Your task to perform on an android device: What's the weather going to be this weekend? Image 0: 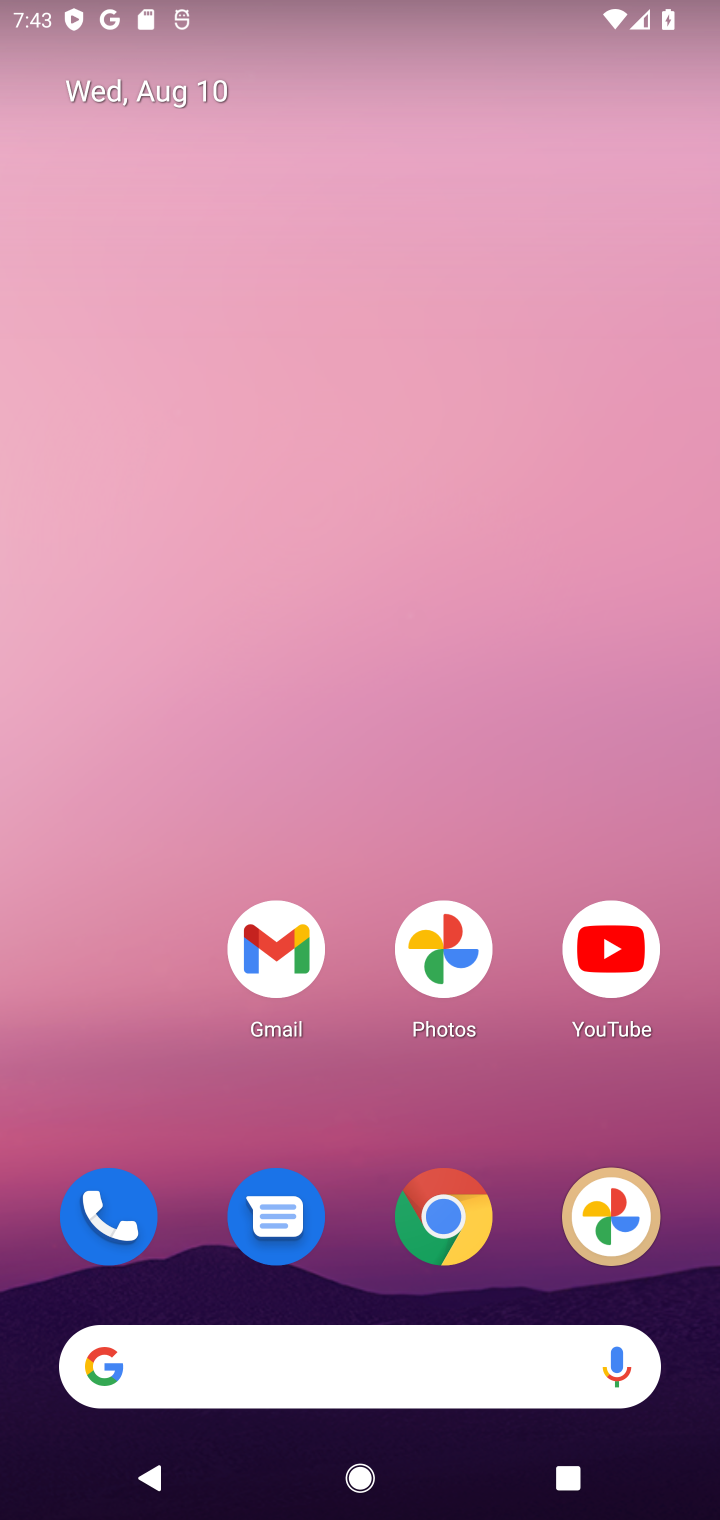
Step 0: click (218, 1344)
Your task to perform on an android device: What's the weather going to be this weekend? Image 1: 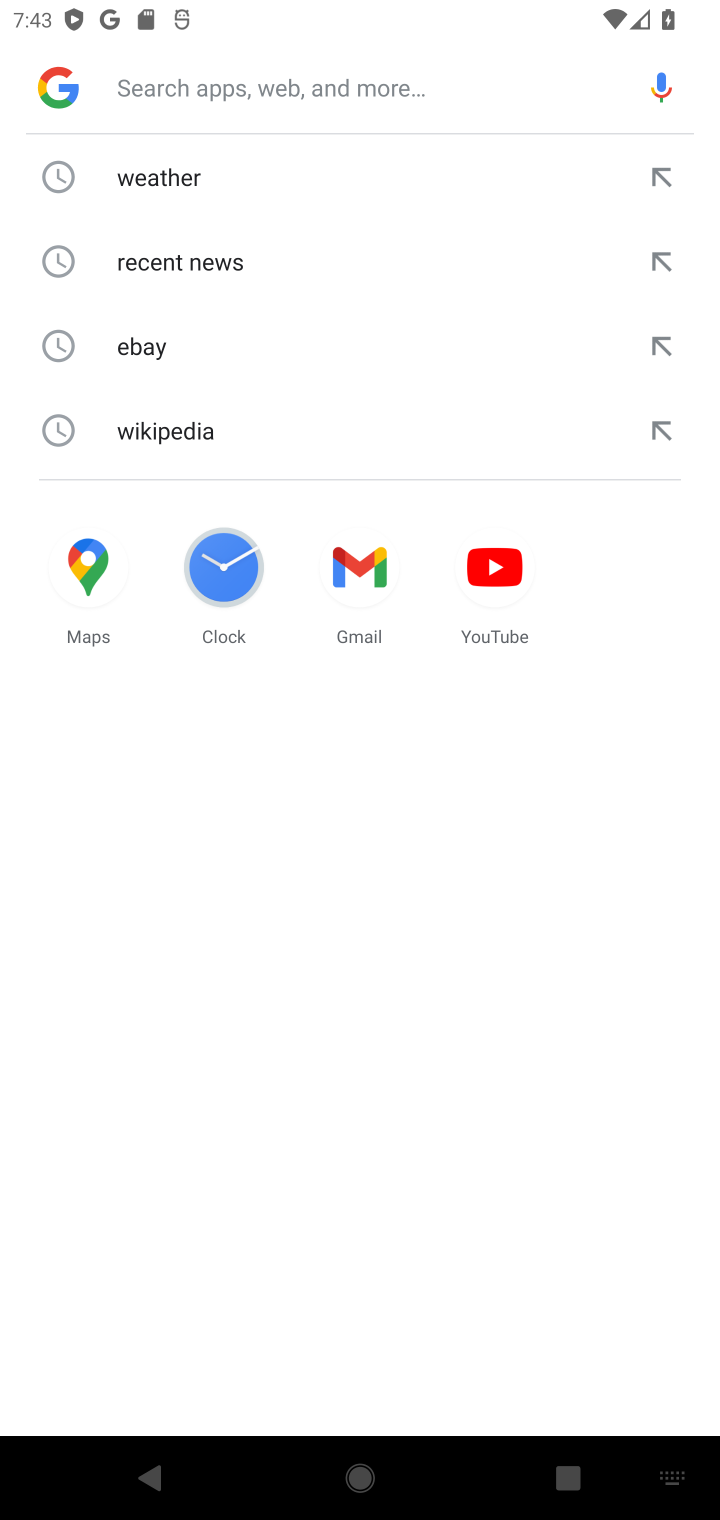
Step 1: click (145, 169)
Your task to perform on an android device: What's the weather going to be this weekend? Image 2: 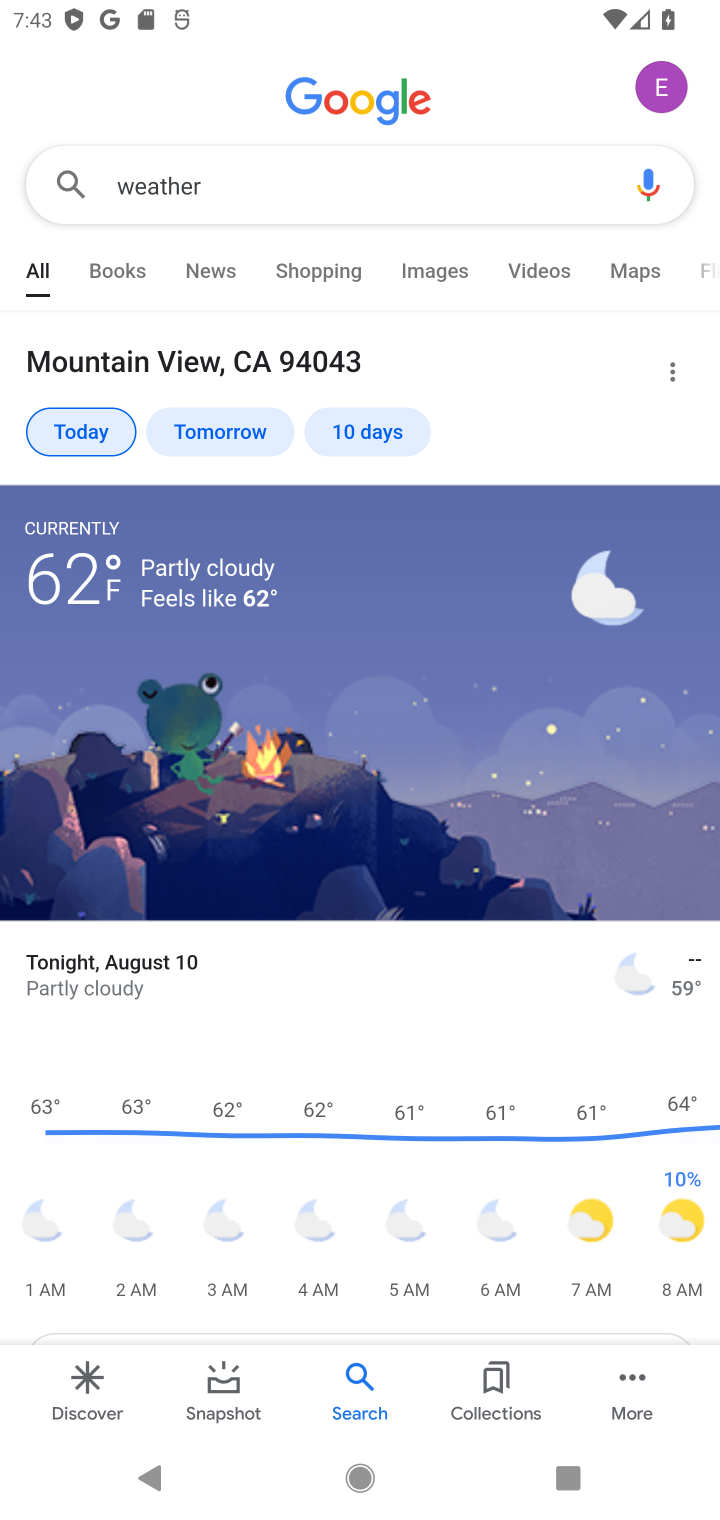
Step 2: click (389, 437)
Your task to perform on an android device: What's the weather going to be this weekend? Image 3: 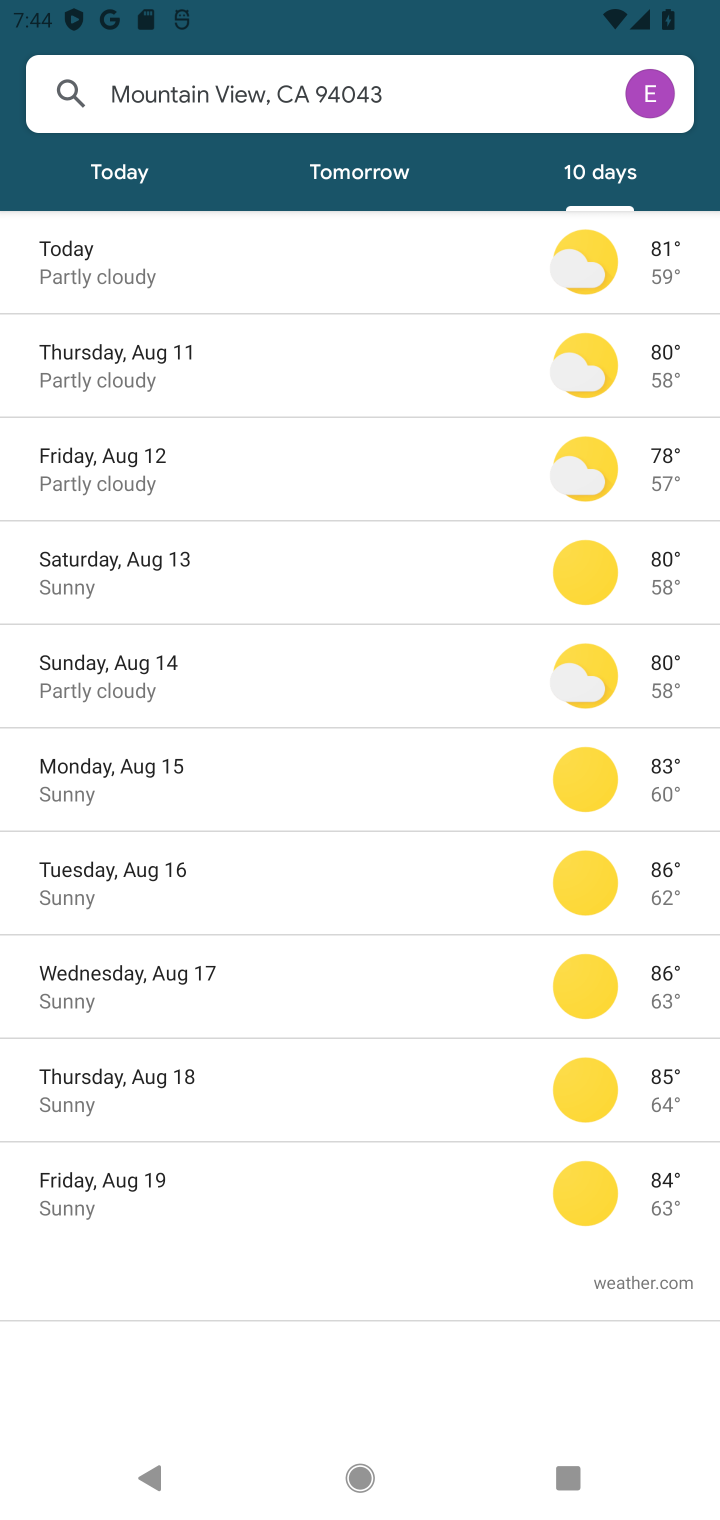
Step 3: task complete